Your task to perform on an android device: Show me recent news Image 0: 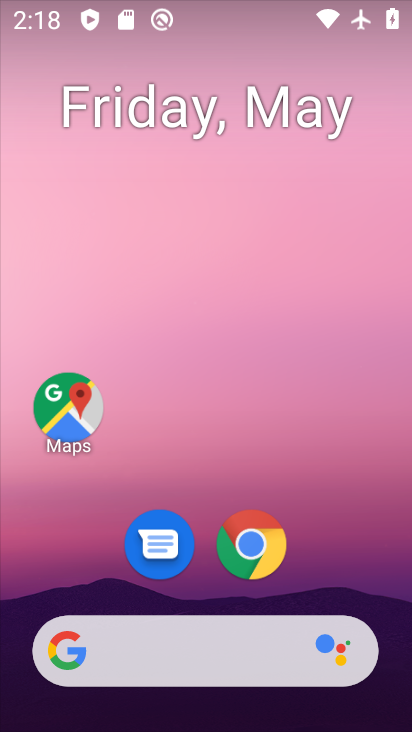
Step 0: click (199, 647)
Your task to perform on an android device: Show me recent news Image 1: 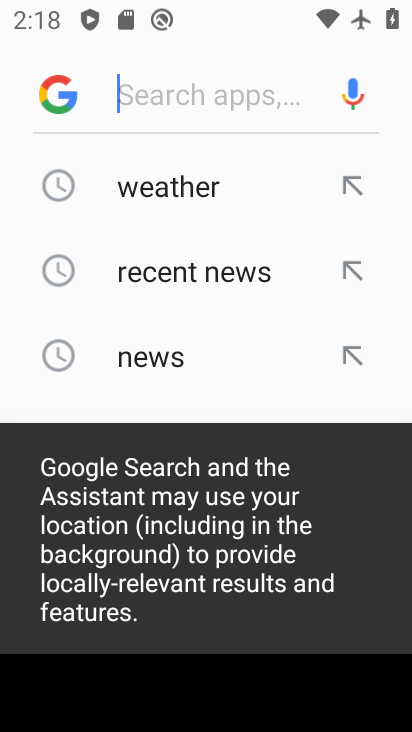
Step 1: click (166, 272)
Your task to perform on an android device: Show me recent news Image 2: 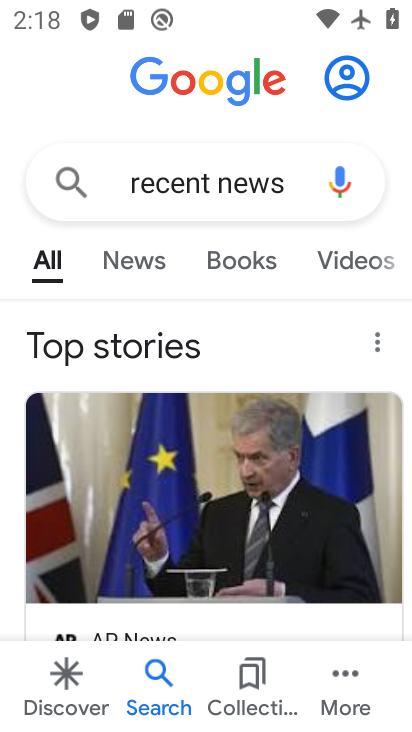
Step 2: task complete